Your task to perform on an android device: Open Google Chrome and open the bookmarks view Image 0: 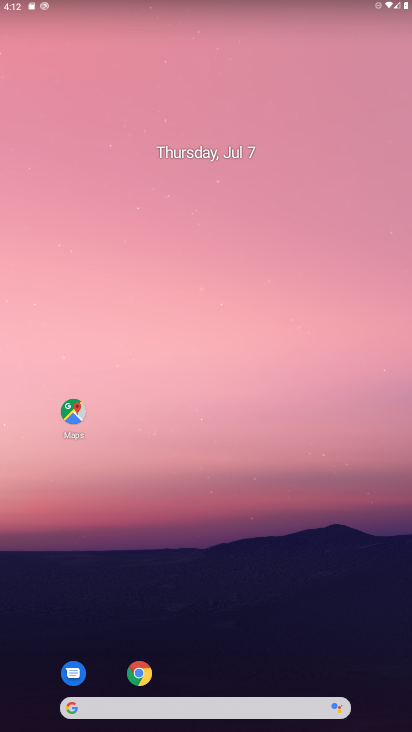
Step 0: press home button
Your task to perform on an android device: Open Google Chrome and open the bookmarks view Image 1: 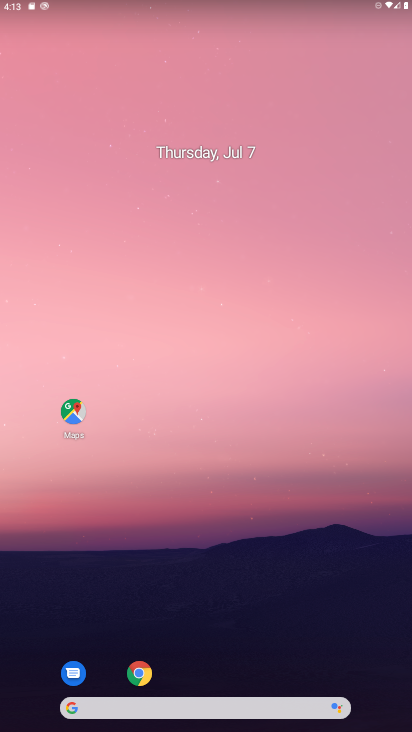
Step 1: click (134, 665)
Your task to perform on an android device: Open Google Chrome and open the bookmarks view Image 2: 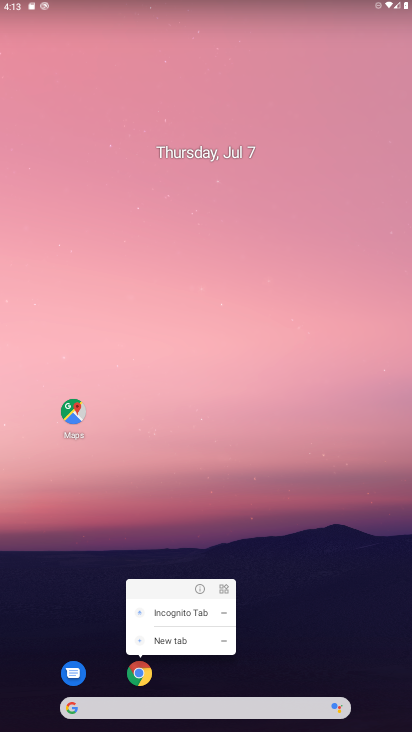
Step 2: click (138, 667)
Your task to perform on an android device: Open Google Chrome and open the bookmarks view Image 3: 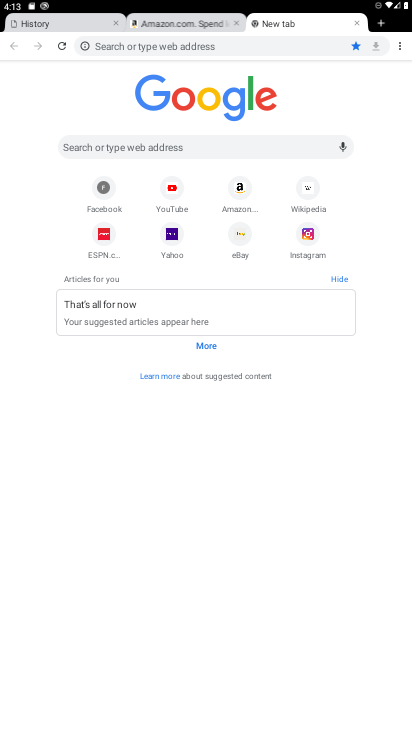
Step 3: click (397, 42)
Your task to perform on an android device: Open Google Chrome and open the bookmarks view Image 4: 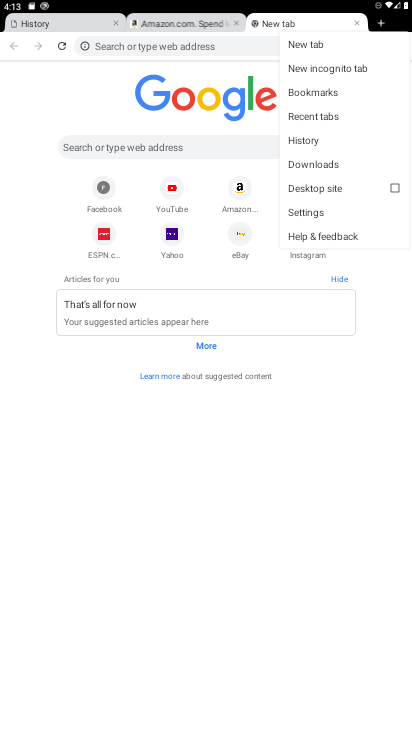
Step 4: click (313, 86)
Your task to perform on an android device: Open Google Chrome and open the bookmarks view Image 5: 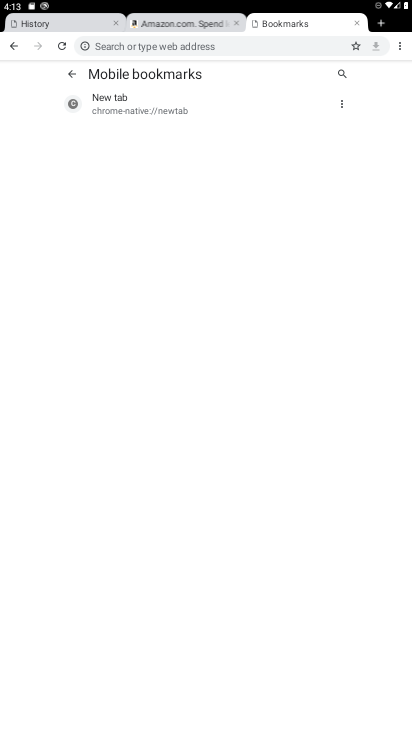
Step 5: task complete